Your task to perform on an android device: What's on my calendar today? Image 0: 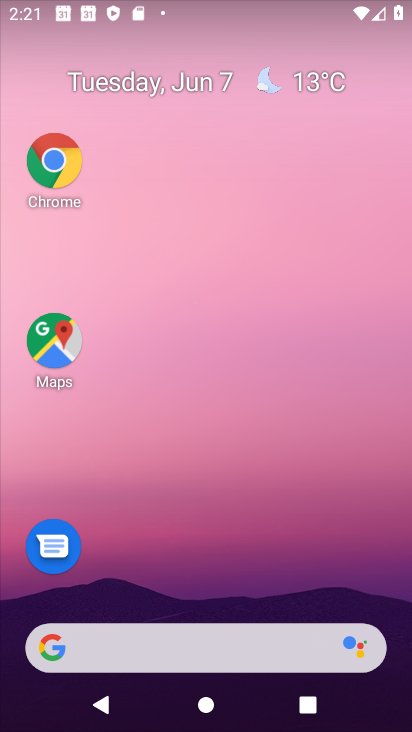
Step 0: drag from (201, 606) to (223, 189)
Your task to perform on an android device: What's on my calendar today? Image 1: 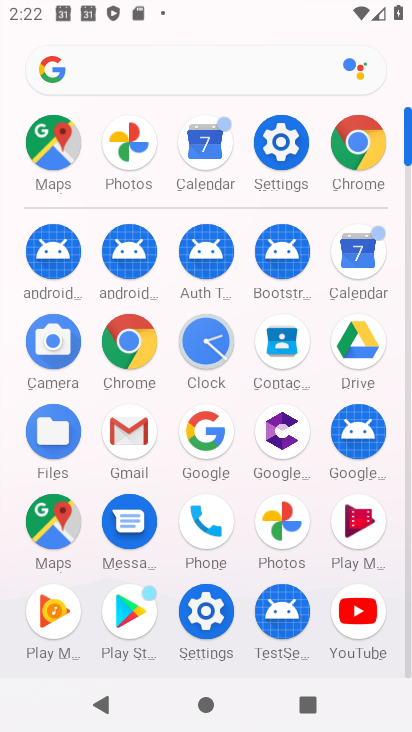
Step 1: click (340, 247)
Your task to perform on an android device: What's on my calendar today? Image 2: 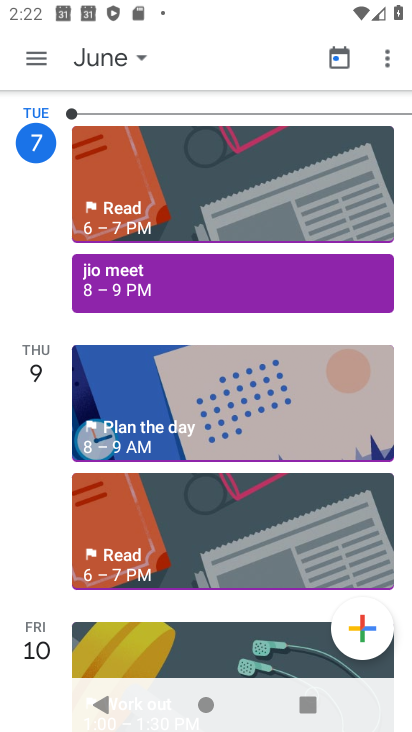
Step 2: click (107, 51)
Your task to perform on an android device: What's on my calendar today? Image 3: 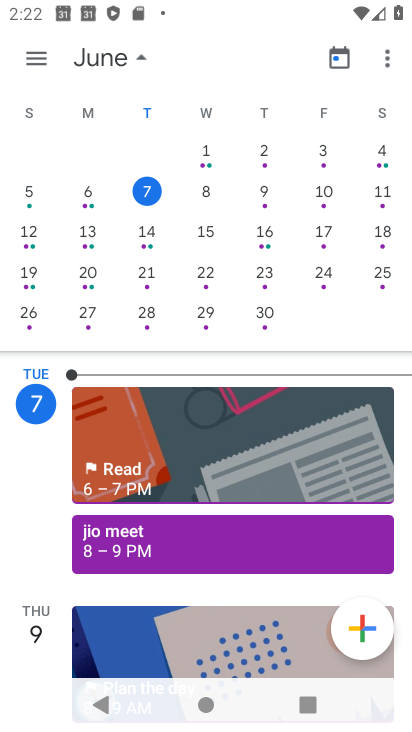
Step 3: click (146, 201)
Your task to perform on an android device: What's on my calendar today? Image 4: 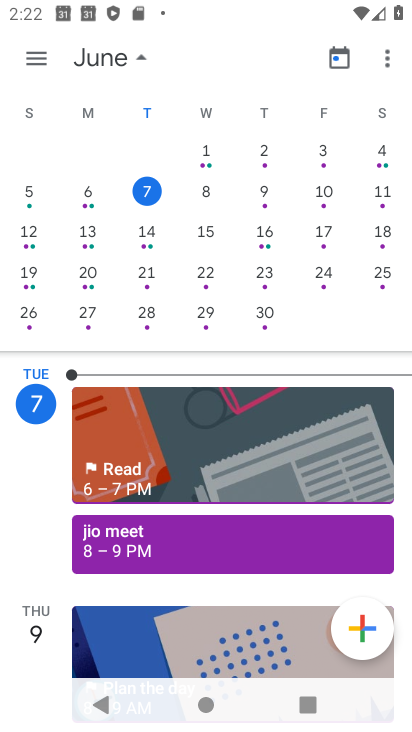
Step 4: task complete